Your task to perform on an android device: toggle airplane mode Image 0: 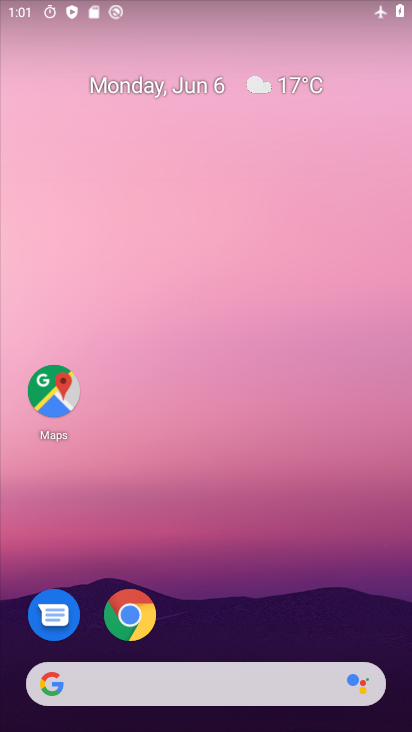
Step 0: drag from (401, 69) to (112, 76)
Your task to perform on an android device: toggle airplane mode Image 1: 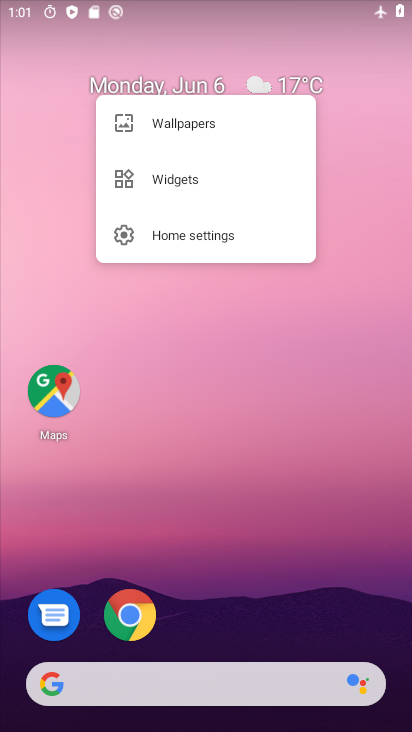
Step 1: drag from (225, 637) to (263, 291)
Your task to perform on an android device: toggle airplane mode Image 2: 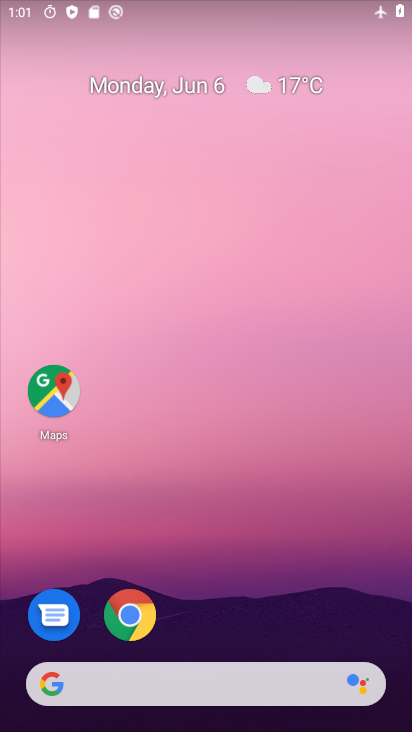
Step 2: drag from (219, 636) to (275, 139)
Your task to perform on an android device: toggle airplane mode Image 3: 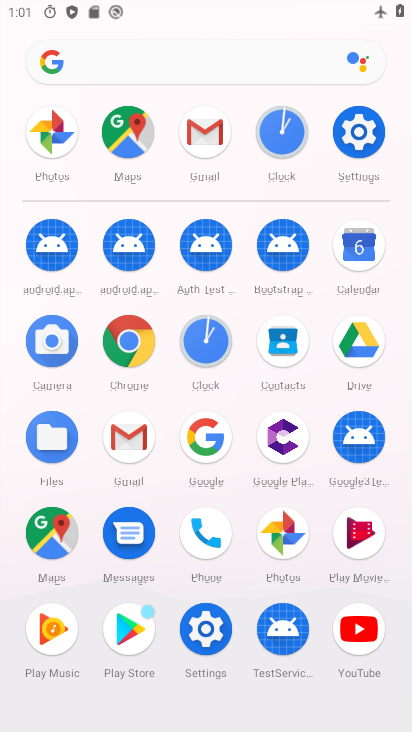
Step 3: click (368, 118)
Your task to perform on an android device: toggle airplane mode Image 4: 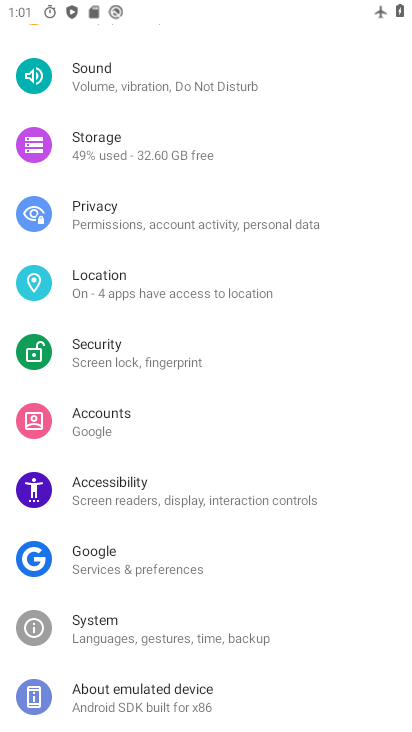
Step 4: drag from (233, 551) to (275, 195)
Your task to perform on an android device: toggle airplane mode Image 5: 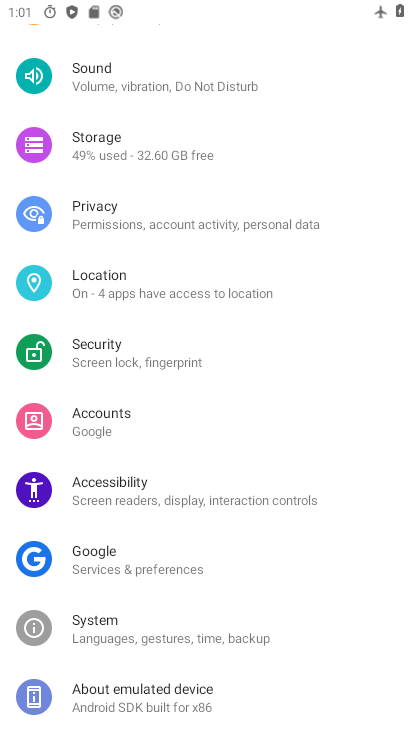
Step 5: drag from (144, 120) to (236, 616)
Your task to perform on an android device: toggle airplane mode Image 6: 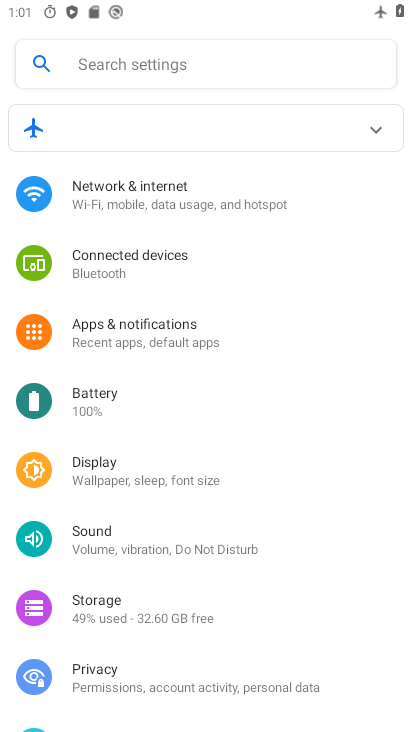
Step 6: click (130, 202)
Your task to perform on an android device: toggle airplane mode Image 7: 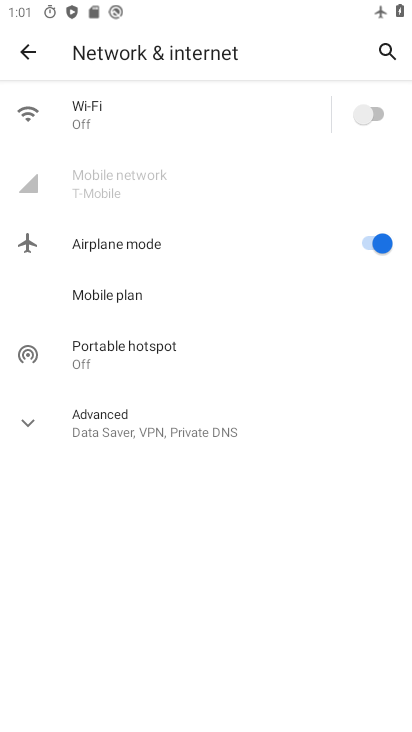
Step 7: click (372, 244)
Your task to perform on an android device: toggle airplane mode Image 8: 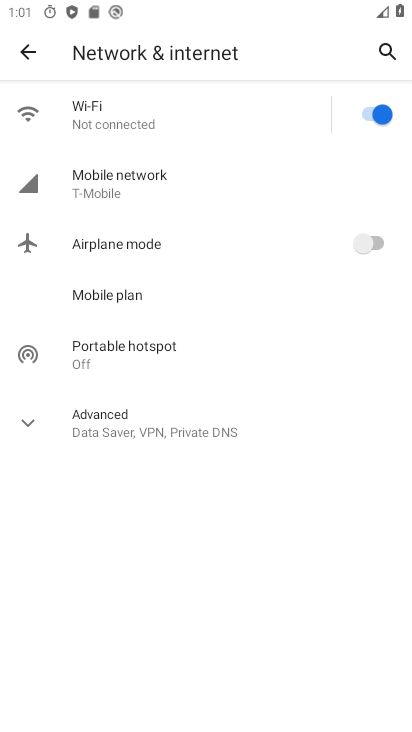
Step 8: task complete